Your task to perform on an android device: toggle location history Image 0: 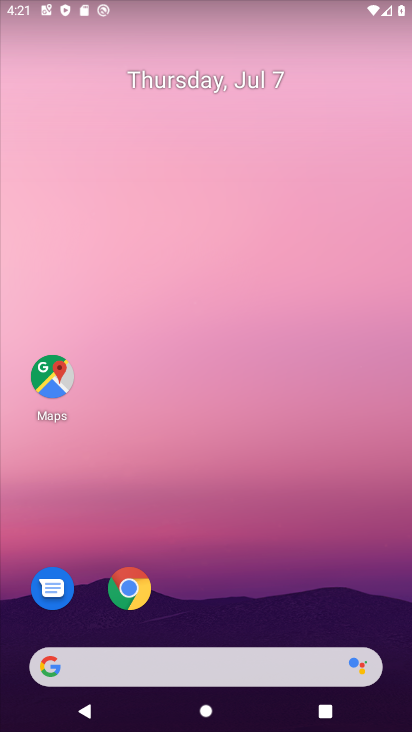
Step 0: drag from (293, 626) to (230, 32)
Your task to perform on an android device: toggle location history Image 1: 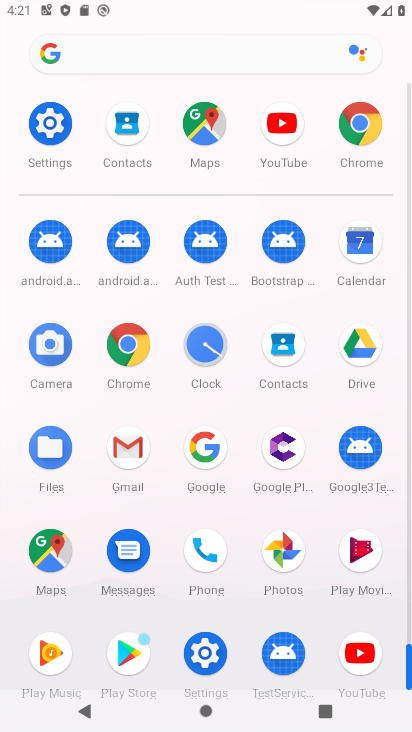
Step 1: click (58, 130)
Your task to perform on an android device: toggle location history Image 2: 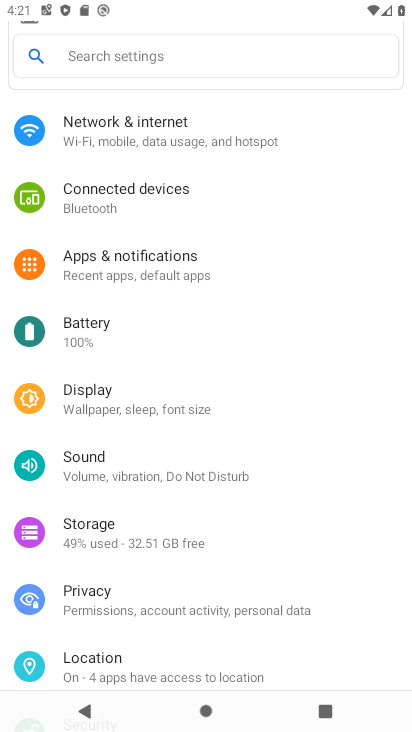
Step 2: click (110, 657)
Your task to perform on an android device: toggle location history Image 3: 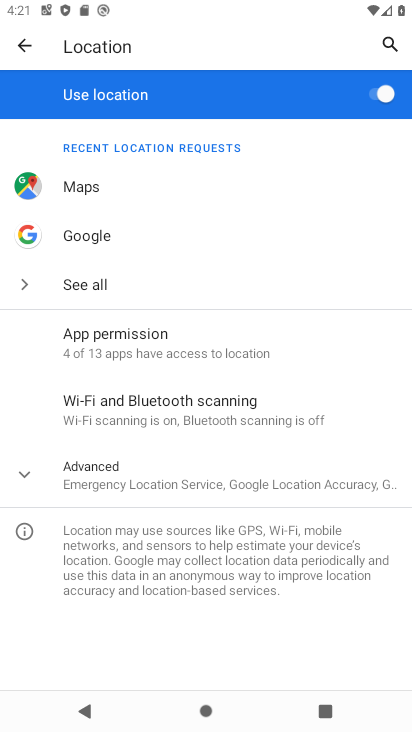
Step 3: click (174, 470)
Your task to perform on an android device: toggle location history Image 4: 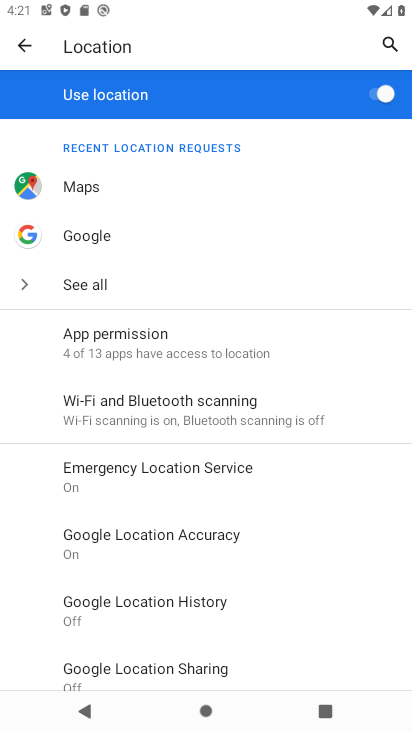
Step 4: click (210, 600)
Your task to perform on an android device: toggle location history Image 5: 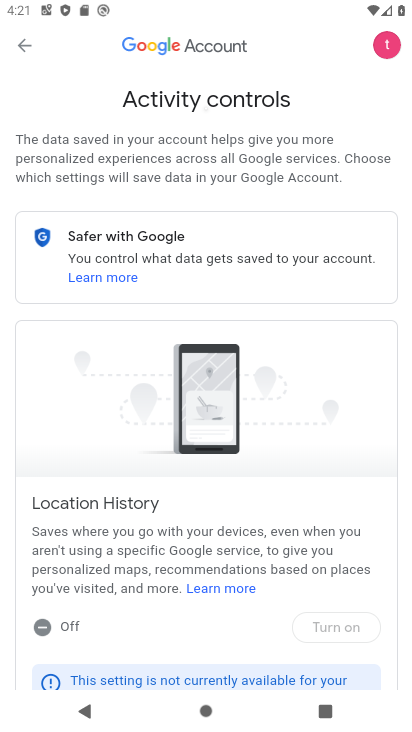
Step 5: task complete